Your task to perform on an android device: Go to calendar. Show me events next week Image 0: 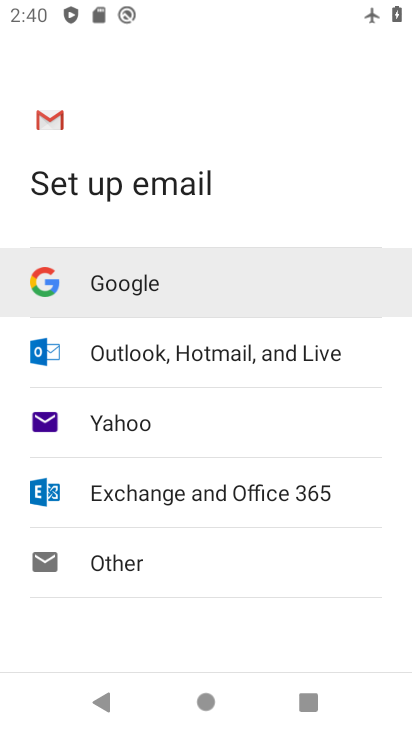
Step 0: press home button
Your task to perform on an android device: Go to calendar. Show me events next week Image 1: 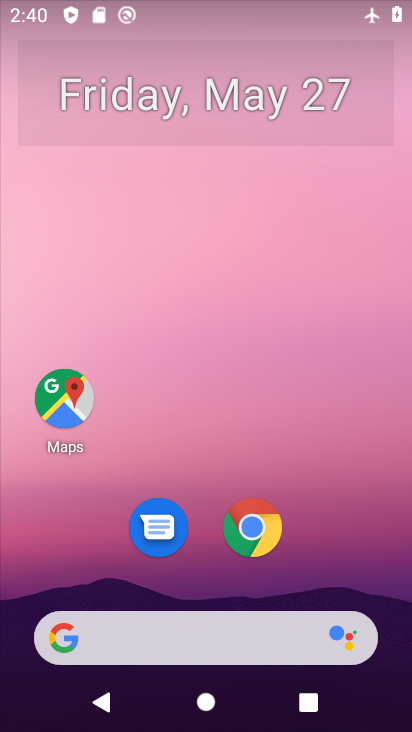
Step 1: drag from (239, 639) to (220, 228)
Your task to perform on an android device: Go to calendar. Show me events next week Image 2: 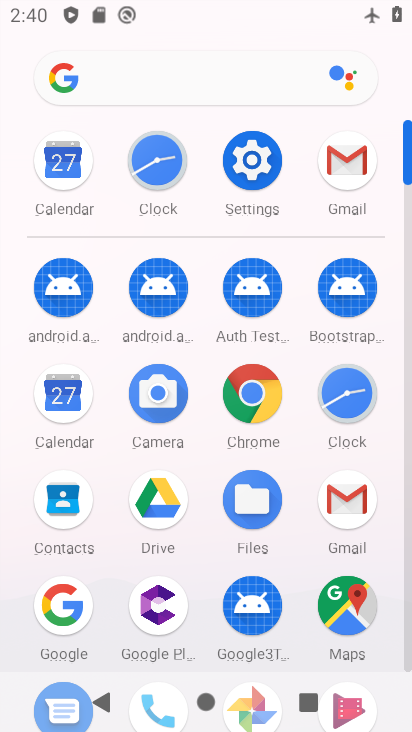
Step 2: click (53, 164)
Your task to perform on an android device: Go to calendar. Show me events next week Image 3: 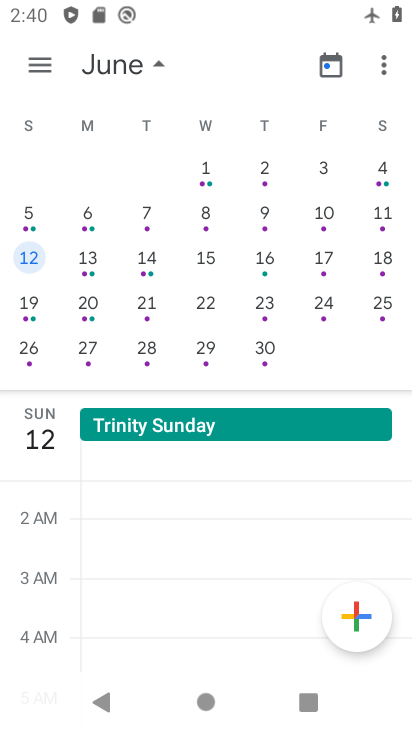
Step 3: click (205, 165)
Your task to perform on an android device: Go to calendar. Show me events next week Image 4: 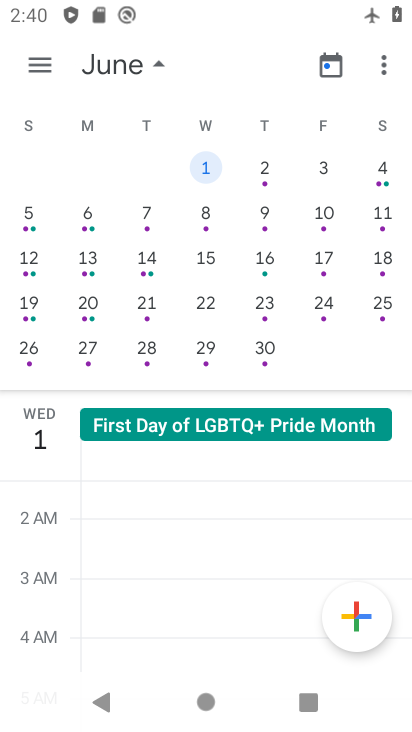
Step 4: task complete